Your task to perform on an android device: find snoozed emails in the gmail app Image 0: 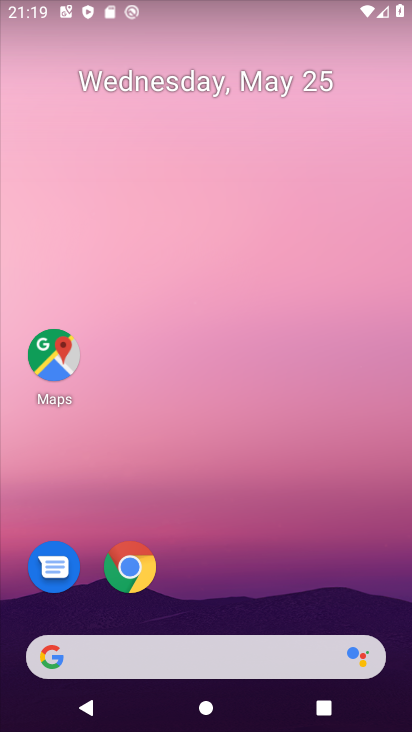
Step 0: drag from (267, 550) to (211, 0)
Your task to perform on an android device: find snoozed emails in the gmail app Image 1: 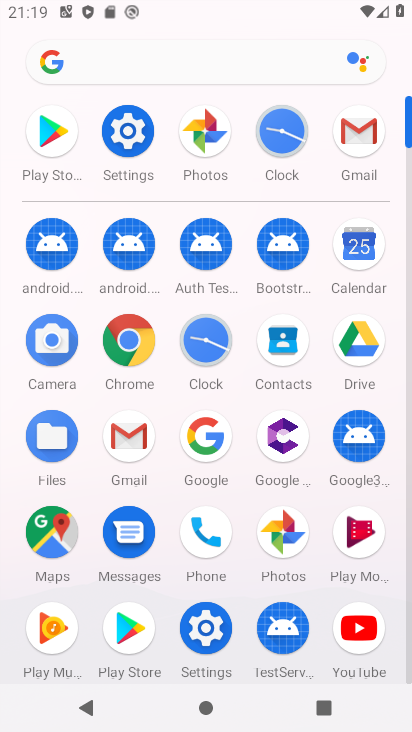
Step 1: click (350, 128)
Your task to perform on an android device: find snoozed emails in the gmail app Image 2: 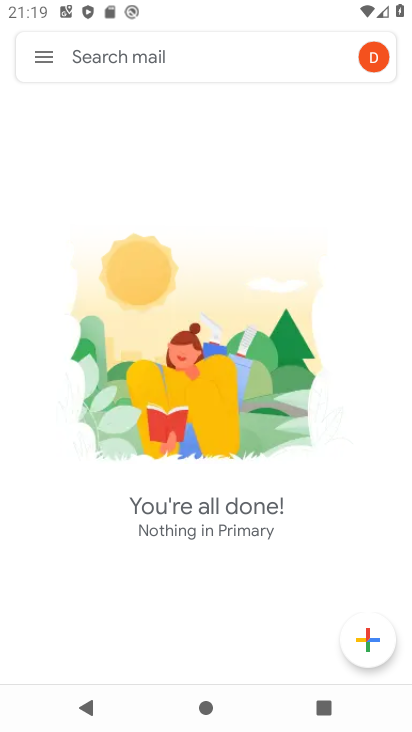
Step 2: click (43, 51)
Your task to perform on an android device: find snoozed emails in the gmail app Image 3: 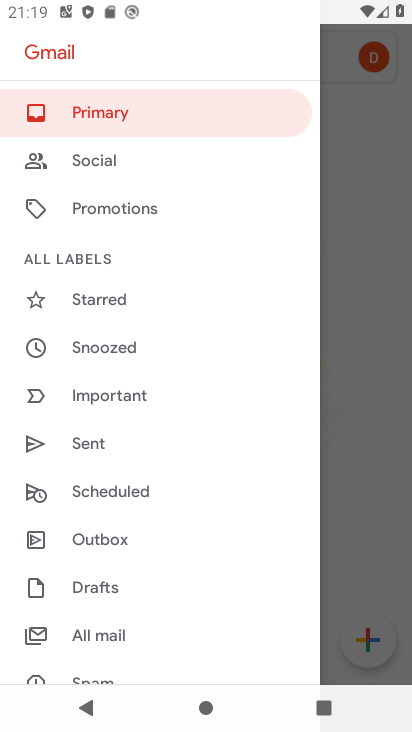
Step 3: click (113, 348)
Your task to perform on an android device: find snoozed emails in the gmail app Image 4: 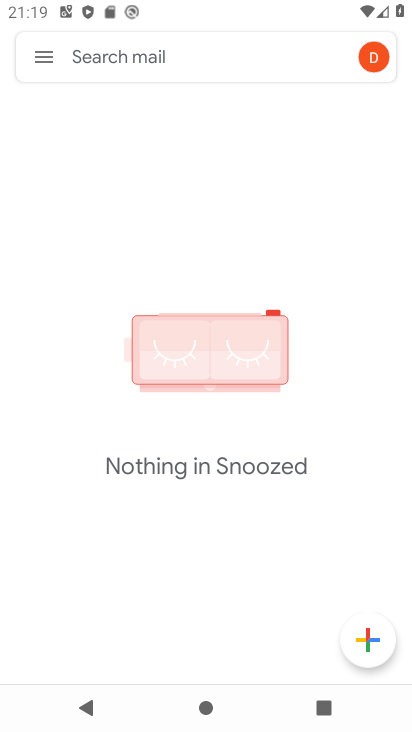
Step 4: task complete